Your task to perform on an android device: Search for pizza restaurants on Maps Image 0: 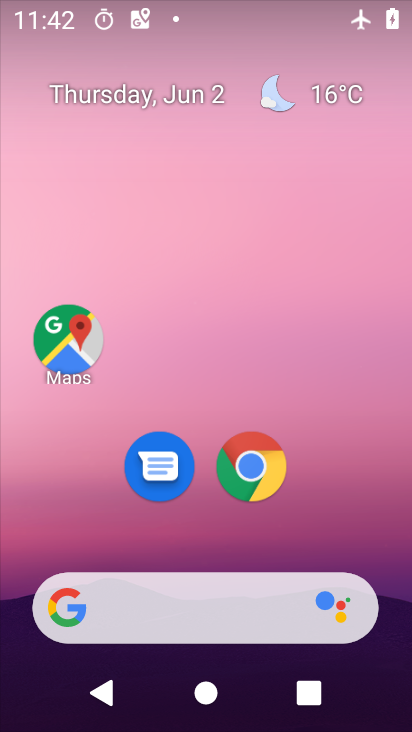
Step 0: click (77, 322)
Your task to perform on an android device: Search for pizza restaurants on Maps Image 1: 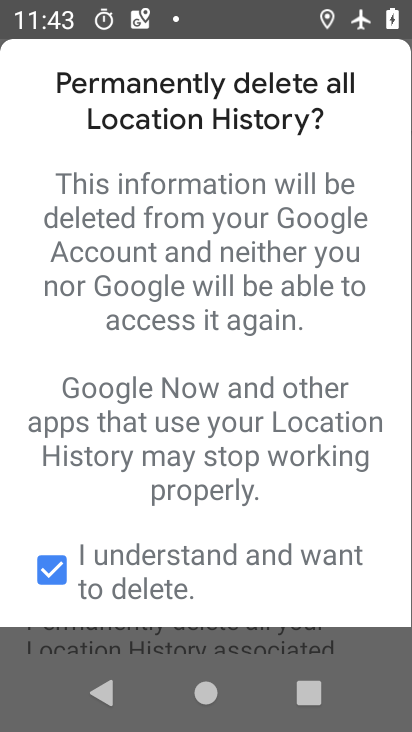
Step 1: press back button
Your task to perform on an android device: Search for pizza restaurants on Maps Image 2: 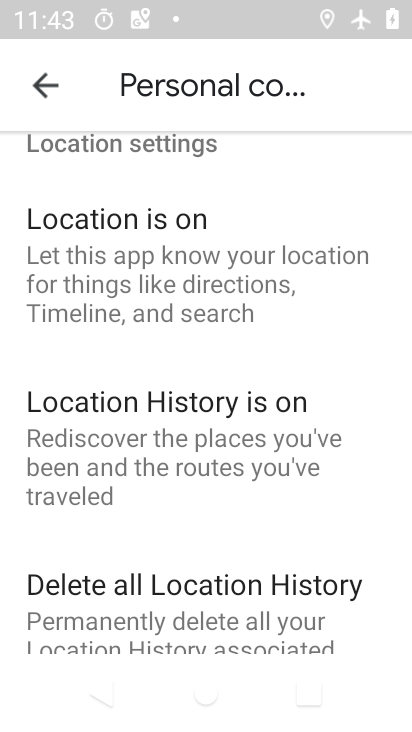
Step 2: click (38, 92)
Your task to perform on an android device: Search for pizza restaurants on Maps Image 3: 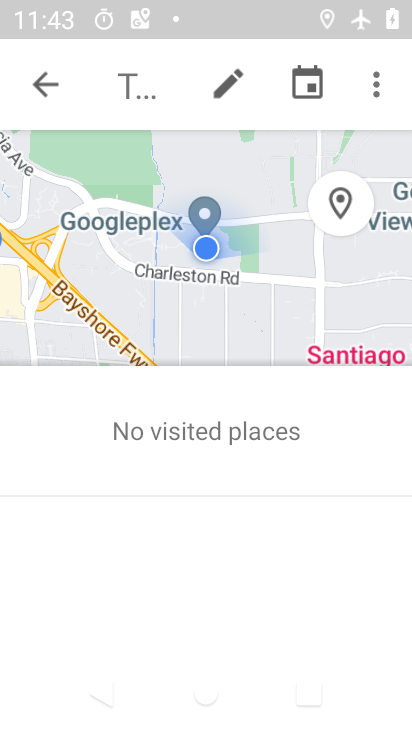
Step 3: click (47, 98)
Your task to perform on an android device: Search for pizza restaurants on Maps Image 4: 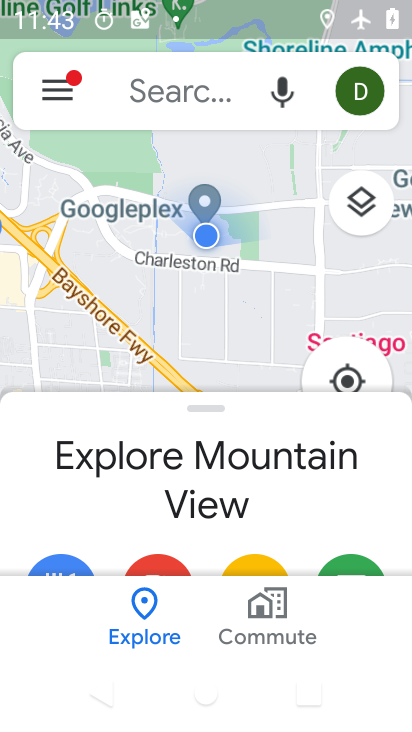
Step 4: click (201, 82)
Your task to perform on an android device: Search for pizza restaurants on Maps Image 5: 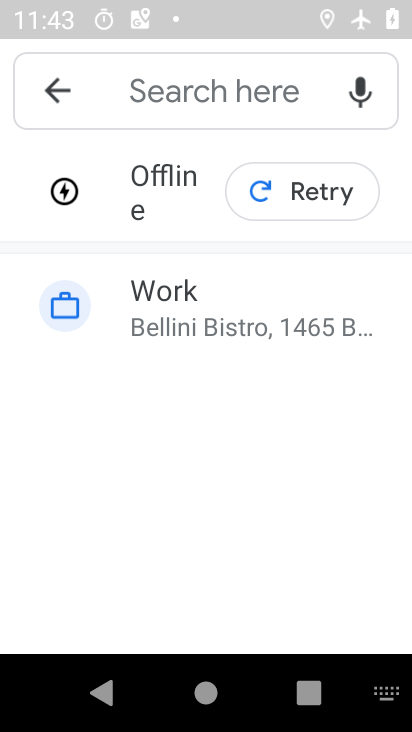
Step 5: type "pizza restaurants"
Your task to perform on an android device: Search for pizza restaurants on Maps Image 6: 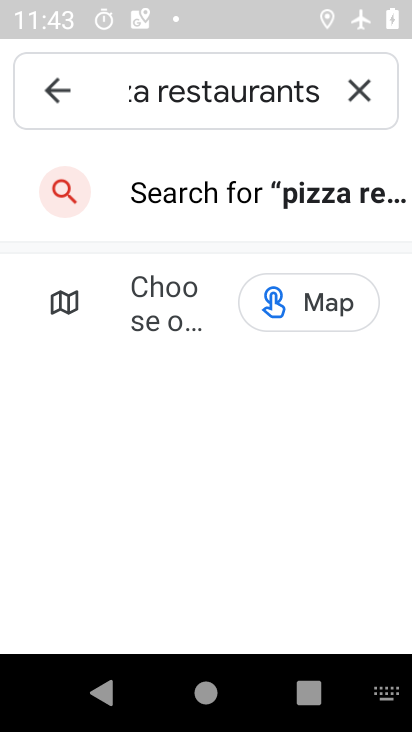
Step 6: click (332, 201)
Your task to perform on an android device: Search for pizza restaurants on Maps Image 7: 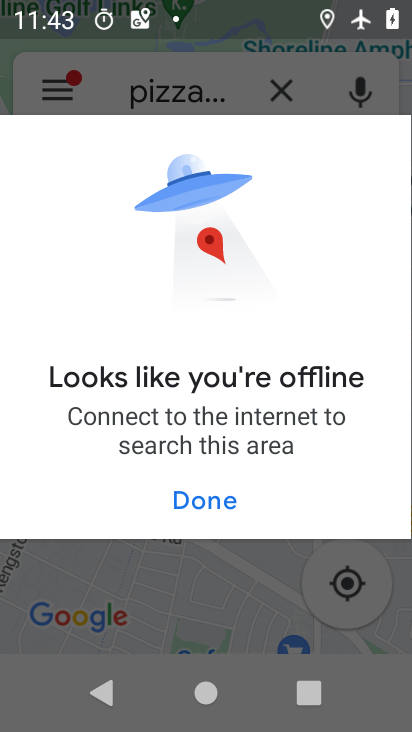
Step 7: task complete